Your task to perform on an android device: toggle translation in the chrome app Image 0: 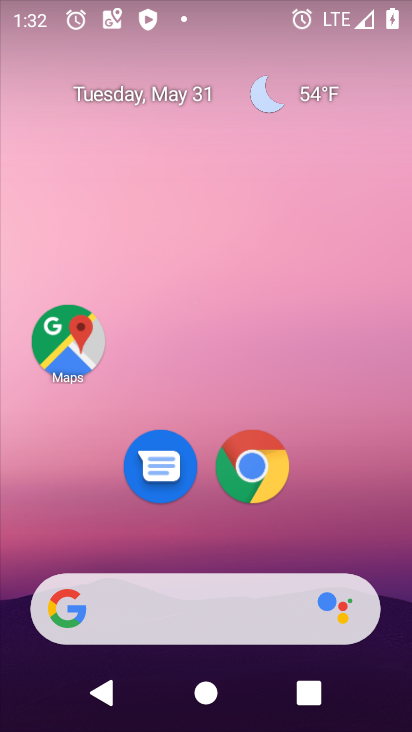
Step 0: click (252, 482)
Your task to perform on an android device: toggle translation in the chrome app Image 1: 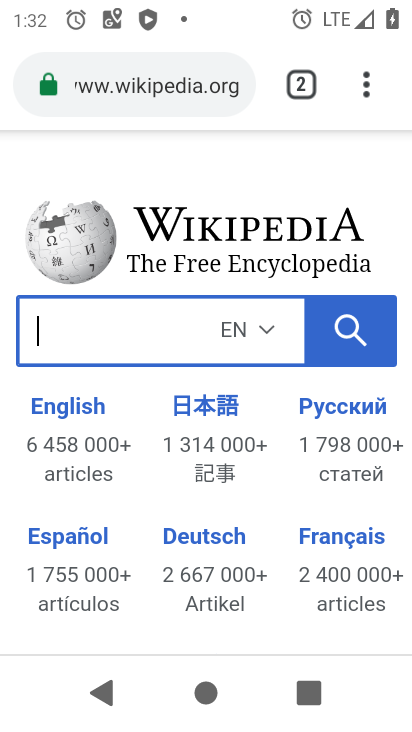
Step 1: drag from (364, 93) to (173, 519)
Your task to perform on an android device: toggle translation in the chrome app Image 2: 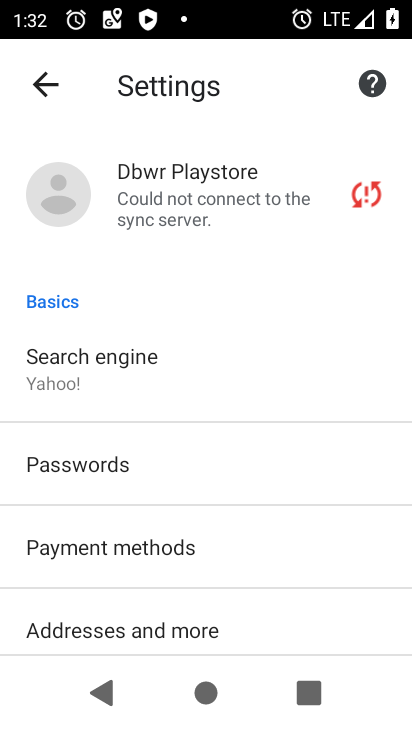
Step 2: drag from (191, 602) to (127, 14)
Your task to perform on an android device: toggle translation in the chrome app Image 3: 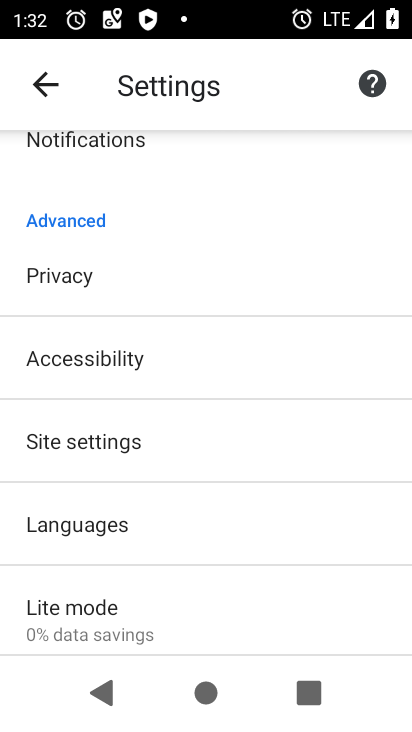
Step 3: click (120, 531)
Your task to perform on an android device: toggle translation in the chrome app Image 4: 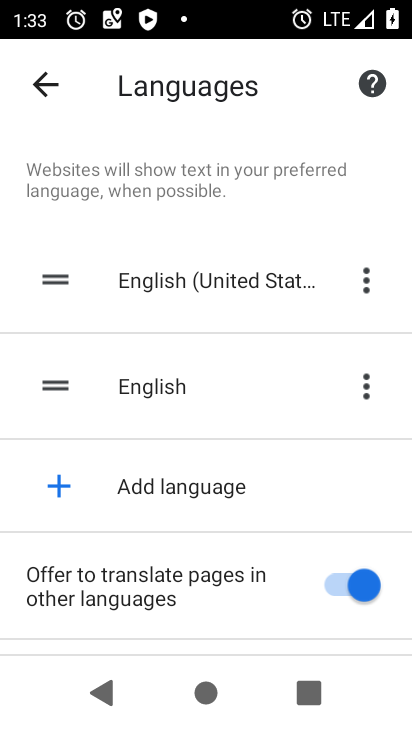
Step 4: click (352, 579)
Your task to perform on an android device: toggle translation in the chrome app Image 5: 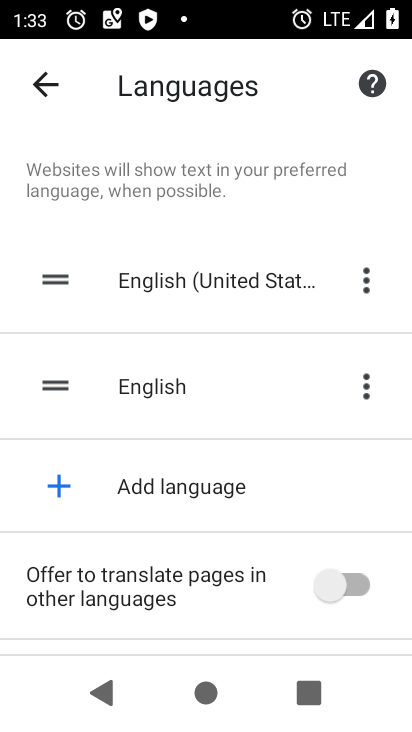
Step 5: task complete